Your task to perform on an android device: set an alarm Image 0: 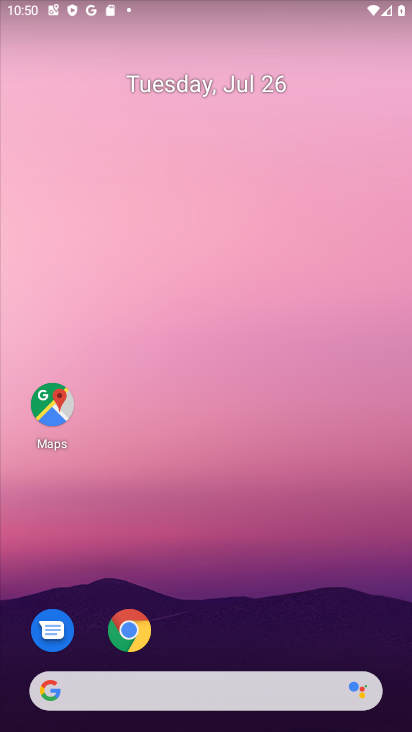
Step 0: drag from (82, 619) to (206, 2)
Your task to perform on an android device: set an alarm Image 1: 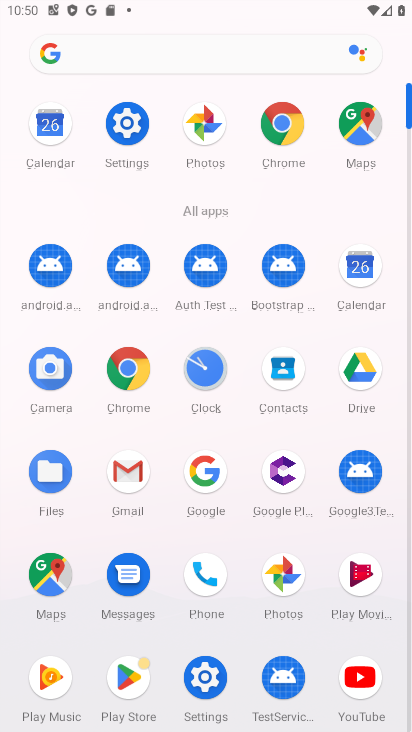
Step 1: click (200, 382)
Your task to perform on an android device: set an alarm Image 2: 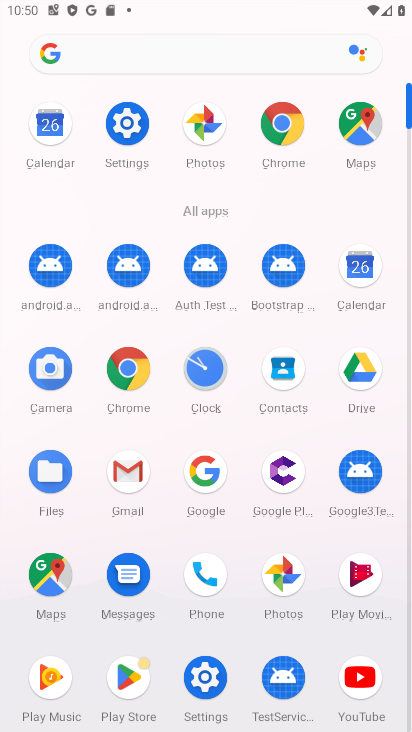
Step 2: click (200, 382)
Your task to perform on an android device: set an alarm Image 3: 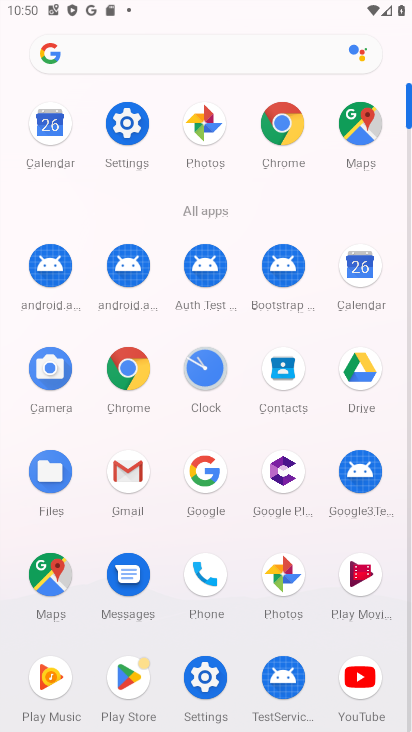
Step 3: click (200, 382)
Your task to perform on an android device: set an alarm Image 4: 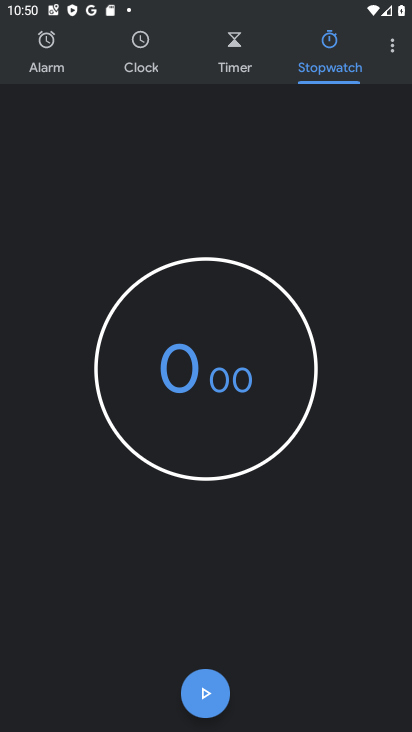
Step 4: click (47, 39)
Your task to perform on an android device: set an alarm Image 5: 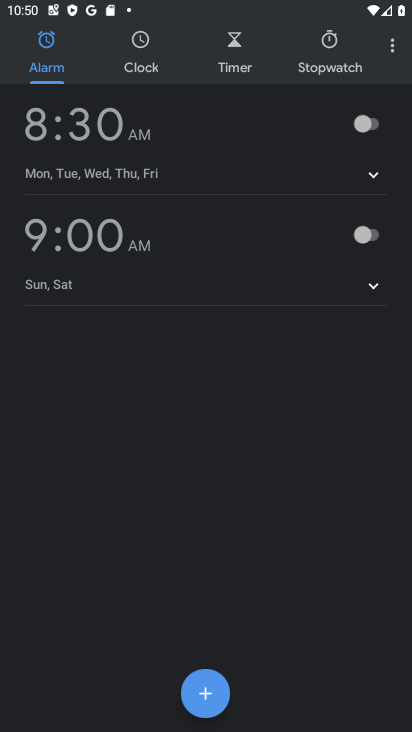
Step 5: click (207, 708)
Your task to perform on an android device: set an alarm Image 6: 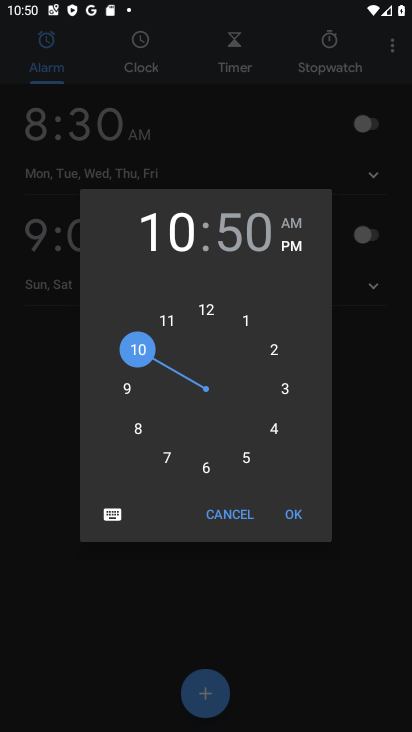
Step 6: click (294, 520)
Your task to perform on an android device: set an alarm Image 7: 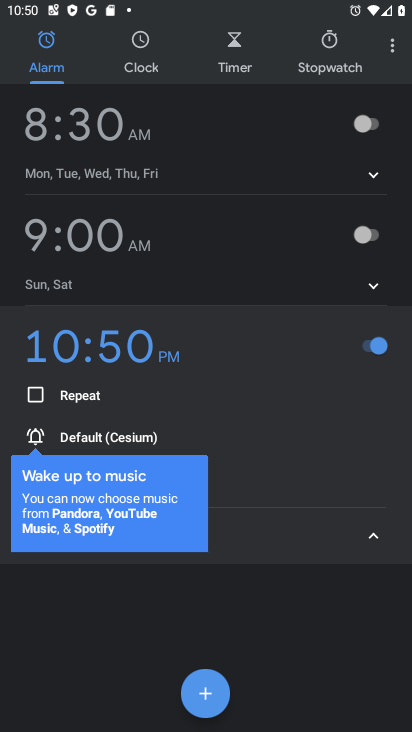
Step 7: task complete